Your task to perform on an android device: find which apps use the phone's location Image 0: 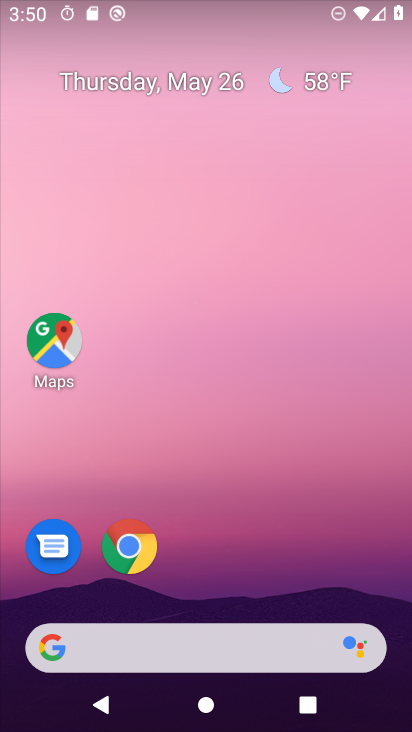
Step 0: press home button
Your task to perform on an android device: find which apps use the phone's location Image 1: 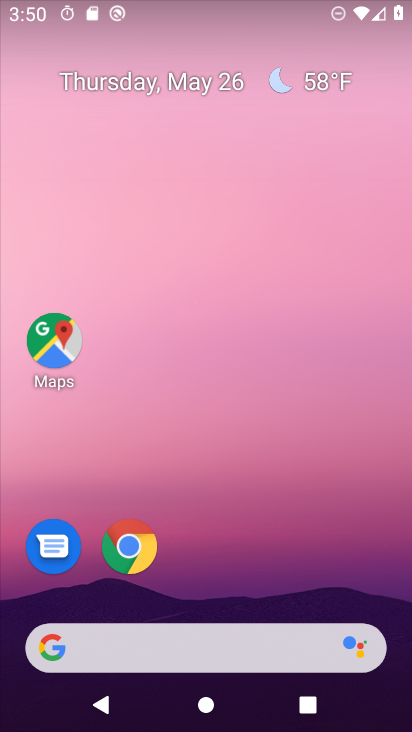
Step 1: drag from (222, 611) to (214, 46)
Your task to perform on an android device: find which apps use the phone's location Image 2: 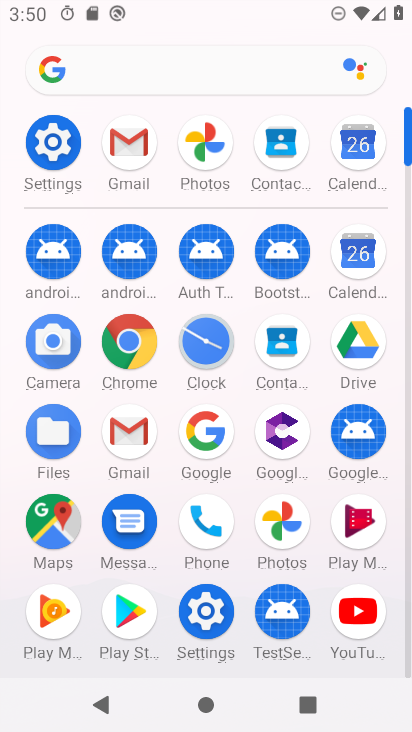
Step 2: click (204, 606)
Your task to perform on an android device: find which apps use the phone's location Image 3: 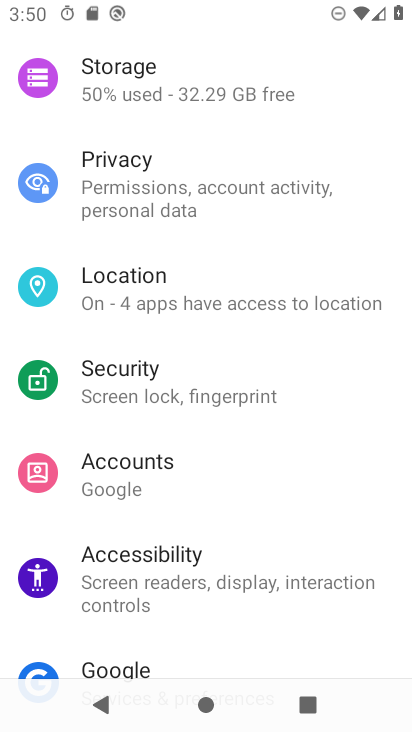
Step 3: click (184, 278)
Your task to perform on an android device: find which apps use the phone's location Image 4: 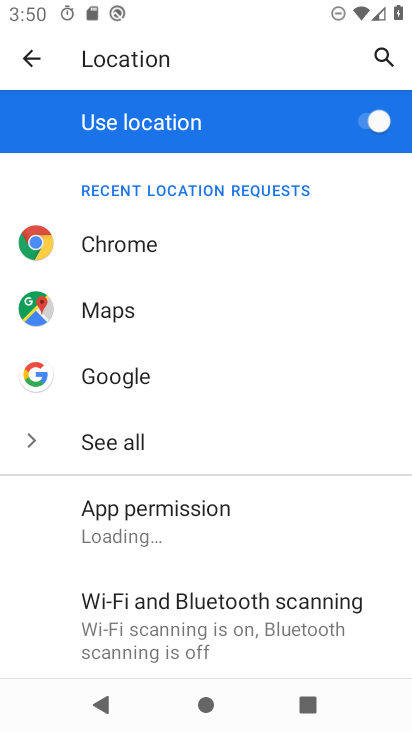
Step 4: drag from (234, 662) to (256, 140)
Your task to perform on an android device: find which apps use the phone's location Image 5: 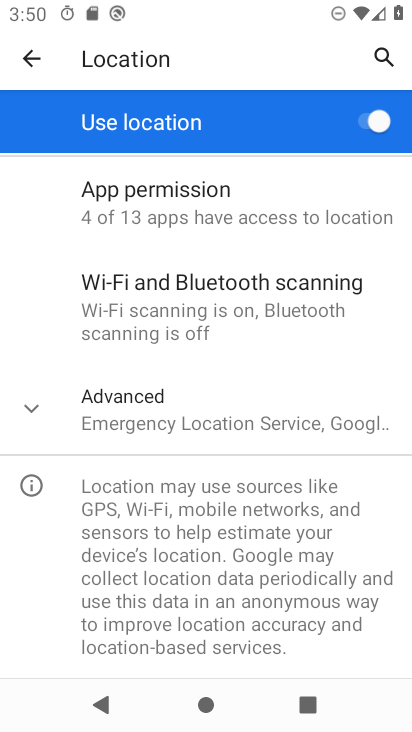
Step 5: click (188, 202)
Your task to perform on an android device: find which apps use the phone's location Image 6: 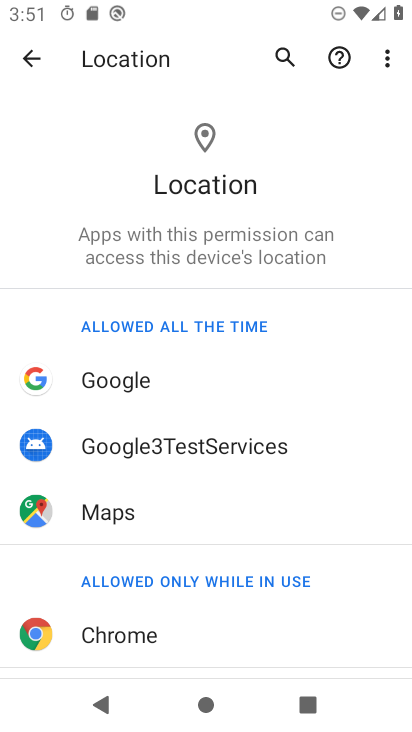
Step 6: task complete